Your task to perform on an android device: Go to notification settings Image 0: 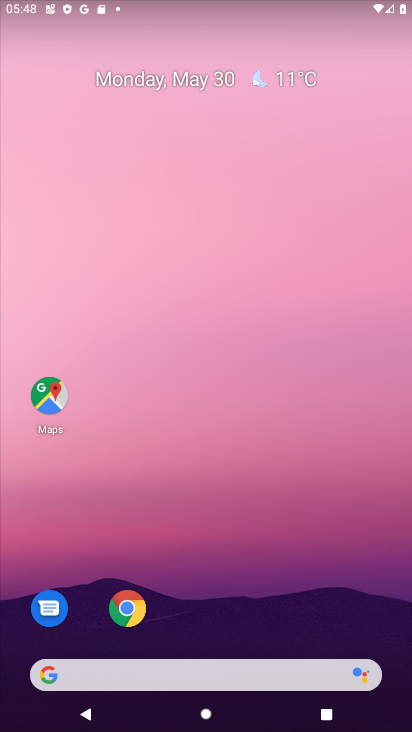
Step 0: drag from (209, 572) to (225, 322)
Your task to perform on an android device: Go to notification settings Image 1: 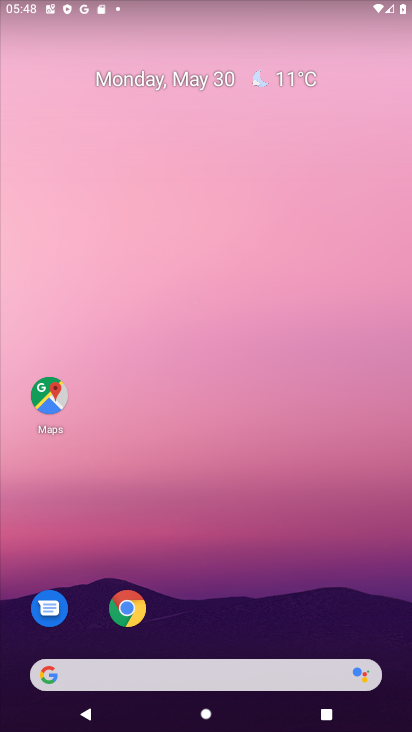
Step 1: drag from (227, 659) to (260, 202)
Your task to perform on an android device: Go to notification settings Image 2: 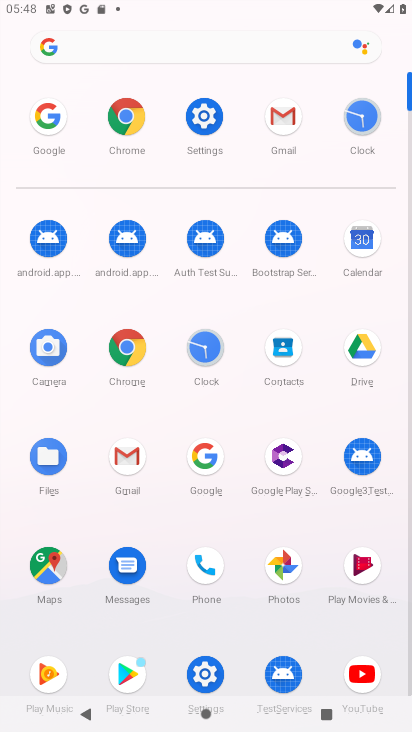
Step 2: click (214, 100)
Your task to perform on an android device: Go to notification settings Image 3: 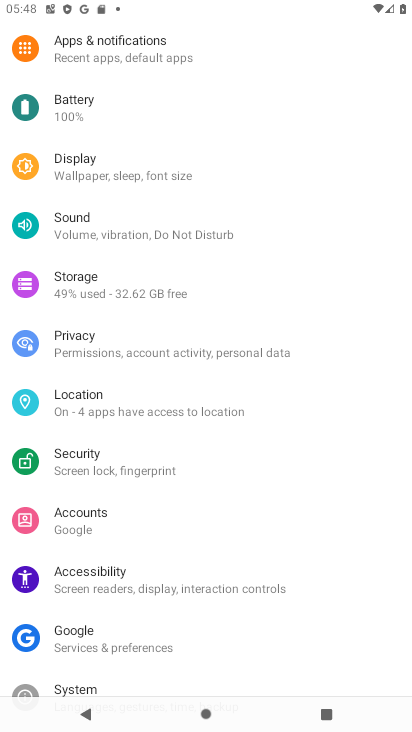
Step 3: click (153, 59)
Your task to perform on an android device: Go to notification settings Image 4: 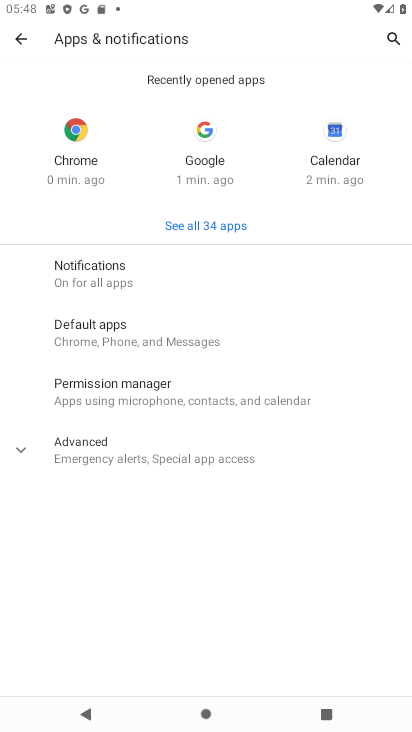
Step 4: click (173, 463)
Your task to perform on an android device: Go to notification settings Image 5: 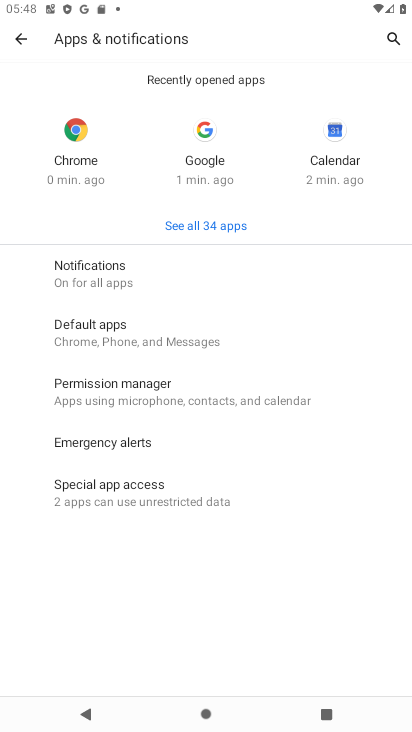
Step 5: task complete